Your task to perform on an android device: change alarm snooze length Image 0: 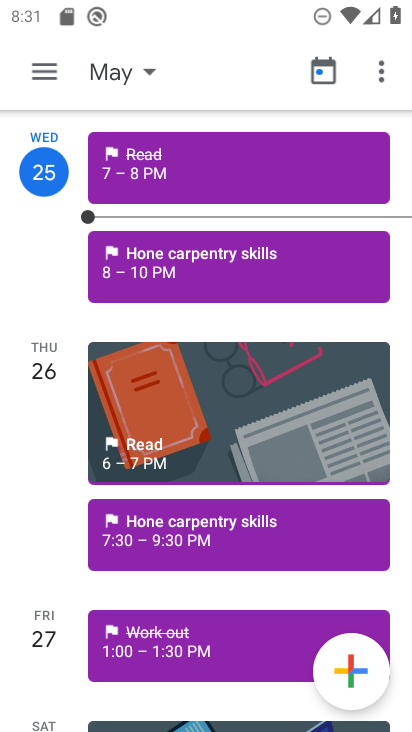
Step 0: press home button
Your task to perform on an android device: change alarm snooze length Image 1: 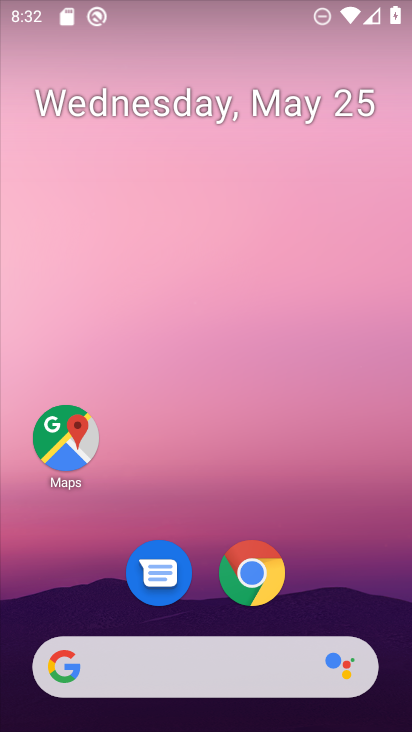
Step 1: drag from (392, 701) to (337, 34)
Your task to perform on an android device: change alarm snooze length Image 2: 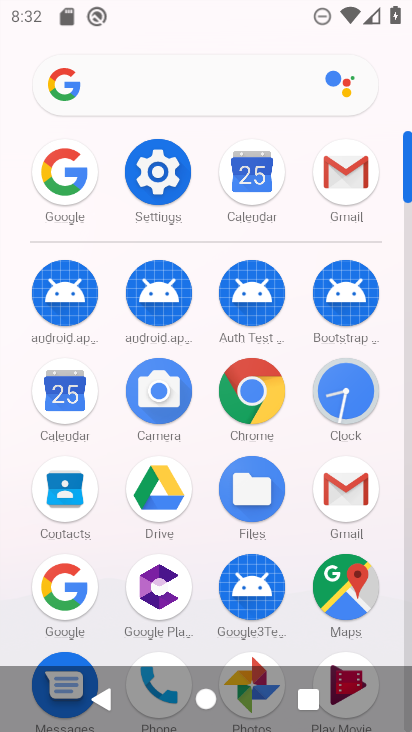
Step 2: click (341, 396)
Your task to perform on an android device: change alarm snooze length Image 3: 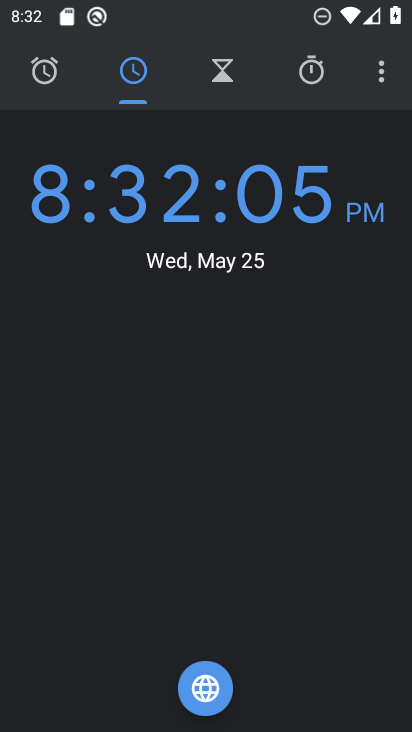
Step 3: click (374, 67)
Your task to perform on an android device: change alarm snooze length Image 4: 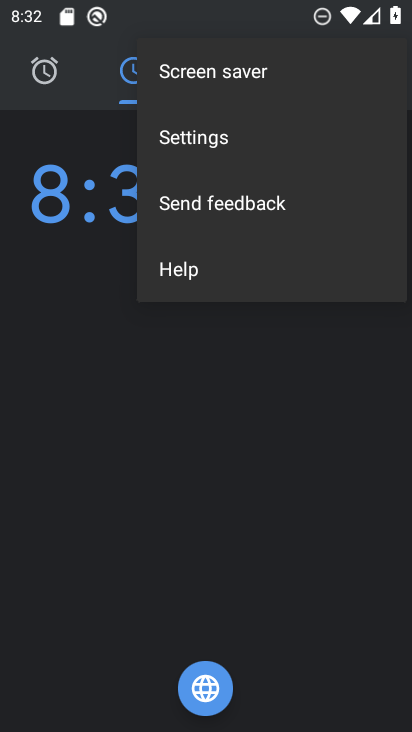
Step 4: click (188, 137)
Your task to perform on an android device: change alarm snooze length Image 5: 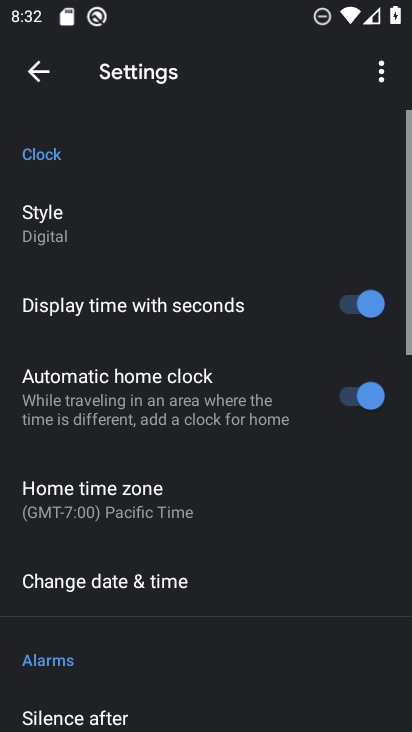
Step 5: drag from (257, 460) to (256, 217)
Your task to perform on an android device: change alarm snooze length Image 6: 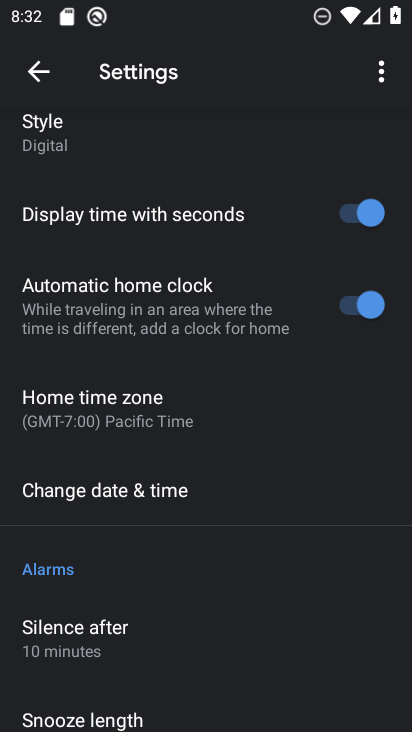
Step 6: drag from (238, 674) to (240, 266)
Your task to perform on an android device: change alarm snooze length Image 7: 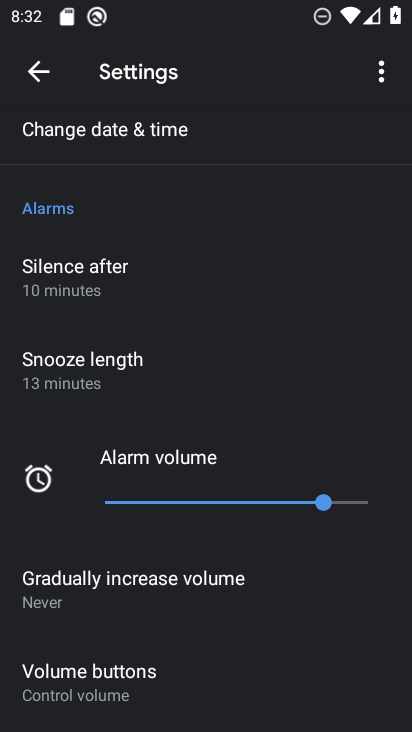
Step 7: click (80, 350)
Your task to perform on an android device: change alarm snooze length Image 8: 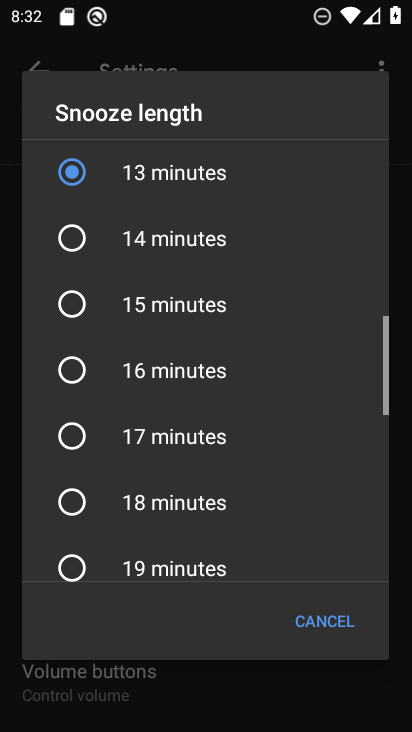
Step 8: click (76, 367)
Your task to perform on an android device: change alarm snooze length Image 9: 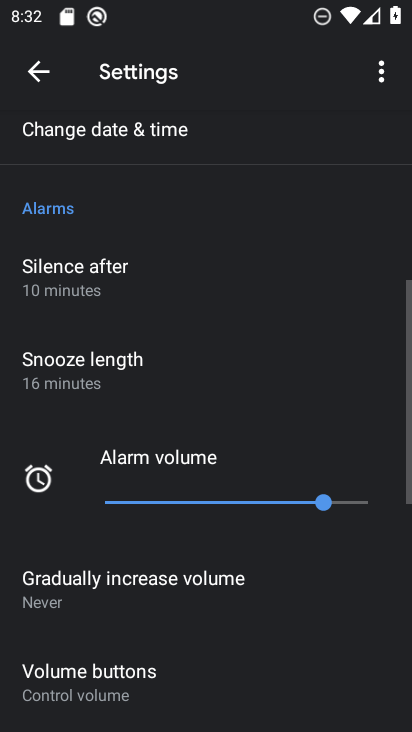
Step 9: task complete